Your task to perform on an android device: toggle translation in the chrome app Image 0: 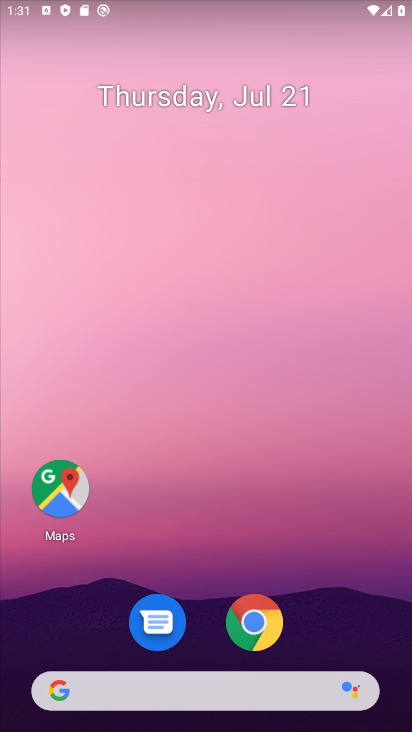
Step 0: press home button
Your task to perform on an android device: toggle translation in the chrome app Image 1: 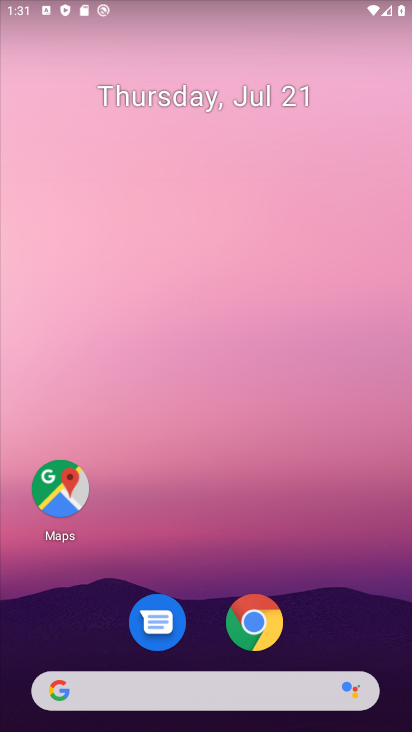
Step 1: click (251, 633)
Your task to perform on an android device: toggle translation in the chrome app Image 2: 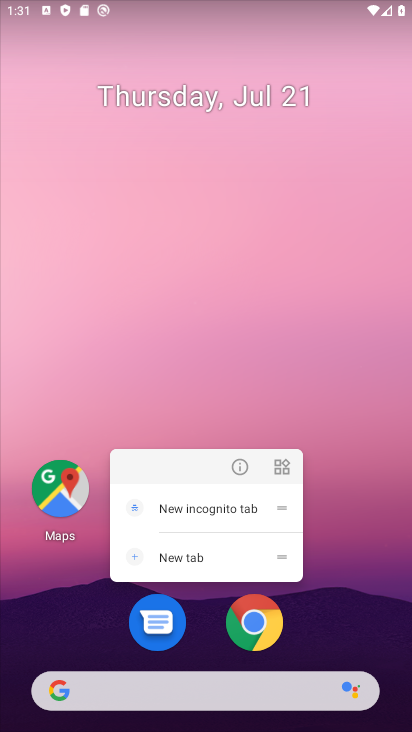
Step 2: click (257, 631)
Your task to perform on an android device: toggle translation in the chrome app Image 3: 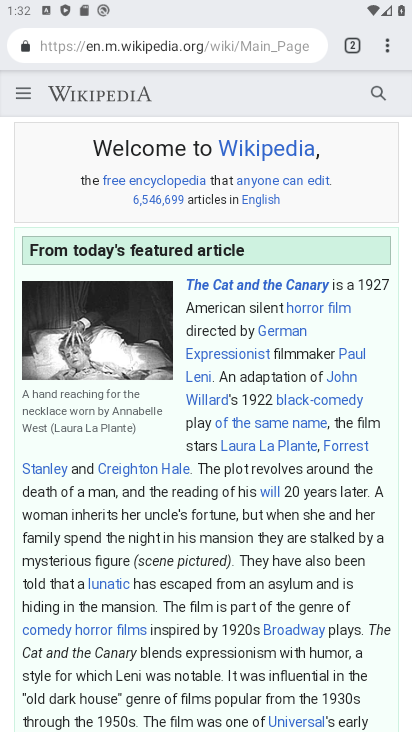
Step 3: click (385, 47)
Your task to perform on an android device: toggle translation in the chrome app Image 4: 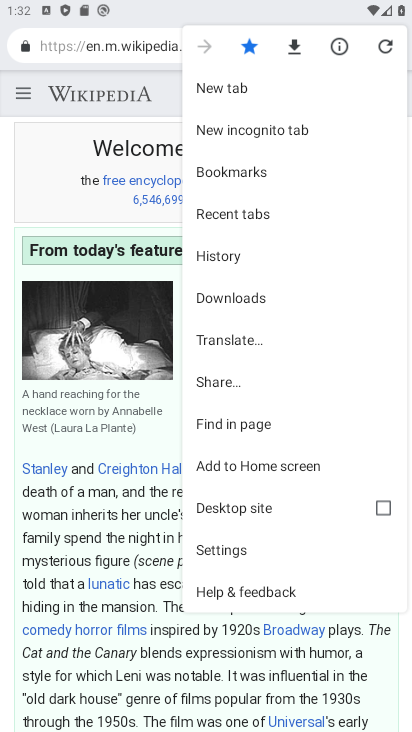
Step 4: click (221, 554)
Your task to perform on an android device: toggle translation in the chrome app Image 5: 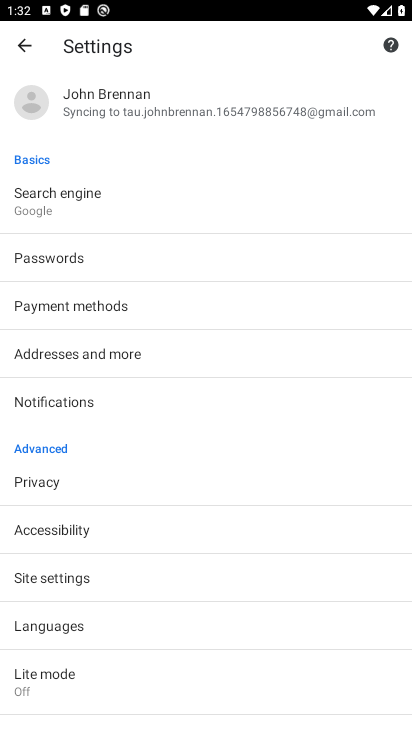
Step 5: click (87, 619)
Your task to perform on an android device: toggle translation in the chrome app Image 6: 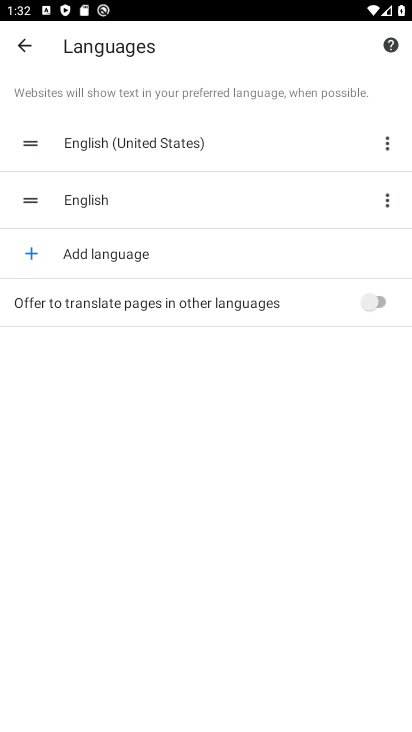
Step 6: click (354, 307)
Your task to perform on an android device: toggle translation in the chrome app Image 7: 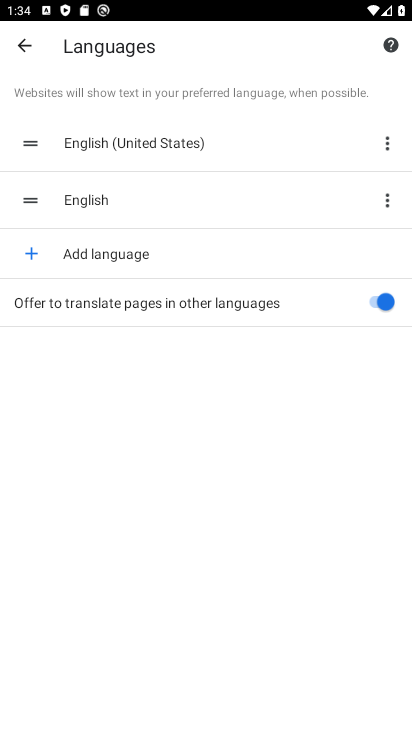
Step 7: task complete